Your task to perform on an android device: Open my contact list Image 0: 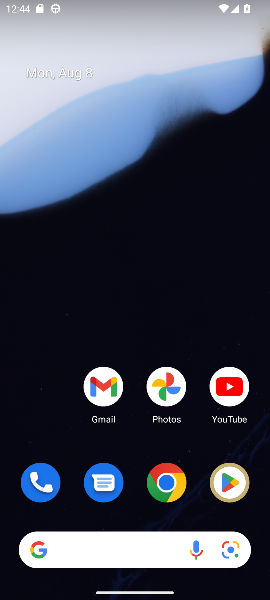
Step 0: drag from (135, 545) to (75, 156)
Your task to perform on an android device: Open my contact list Image 1: 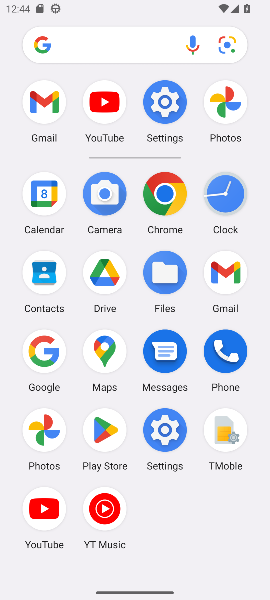
Step 1: click (42, 271)
Your task to perform on an android device: Open my contact list Image 2: 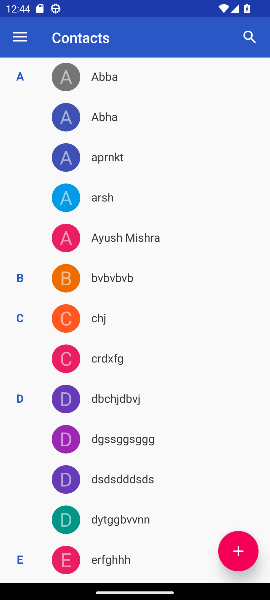
Step 2: task complete